Your task to perform on an android device: Go to notification settings Image 0: 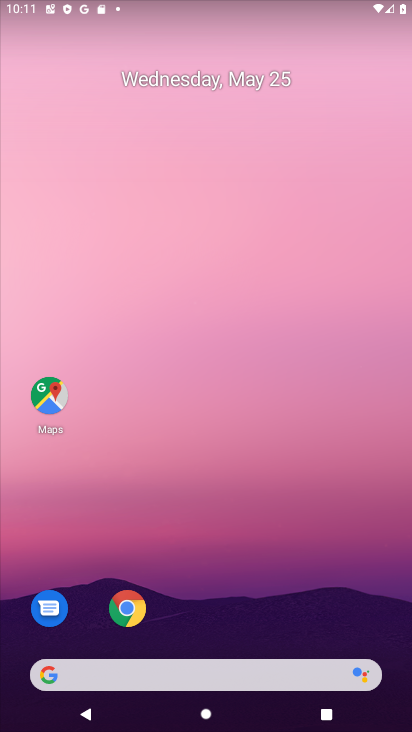
Step 0: drag from (252, 634) to (267, 2)
Your task to perform on an android device: Go to notification settings Image 1: 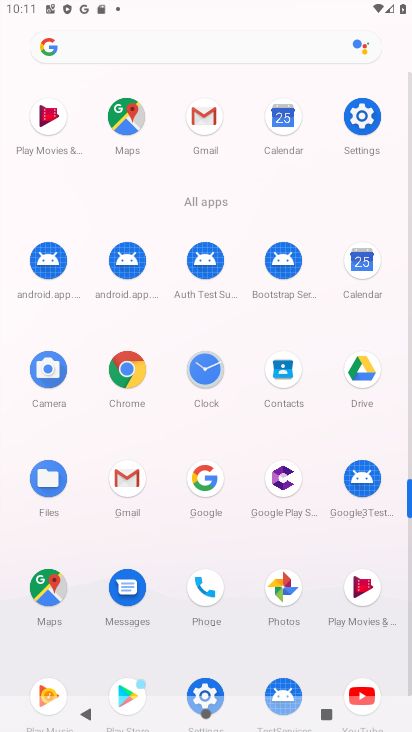
Step 1: click (351, 125)
Your task to perform on an android device: Go to notification settings Image 2: 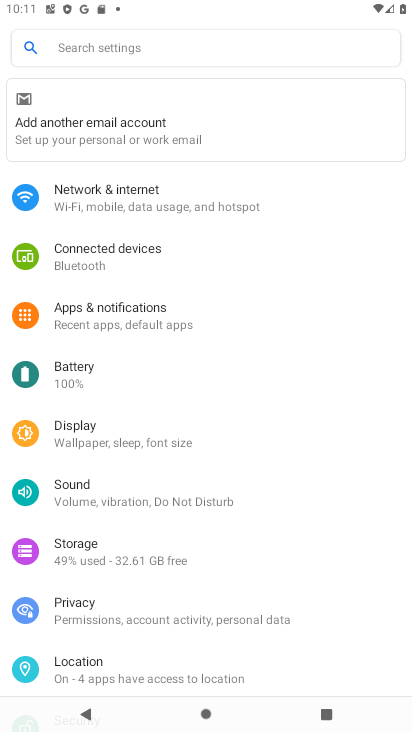
Step 2: click (116, 314)
Your task to perform on an android device: Go to notification settings Image 3: 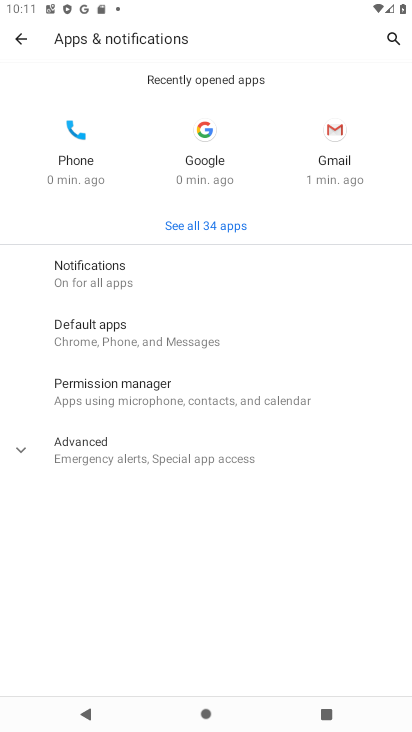
Step 3: task complete